Your task to perform on an android device: Do I have any events this weekend? Image 0: 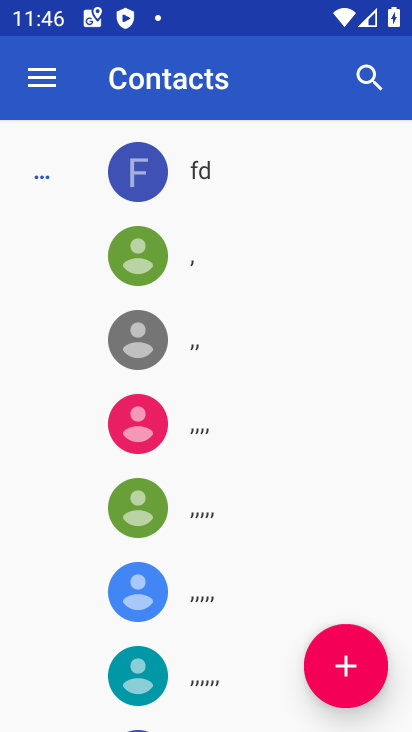
Step 0: press home button
Your task to perform on an android device: Do I have any events this weekend? Image 1: 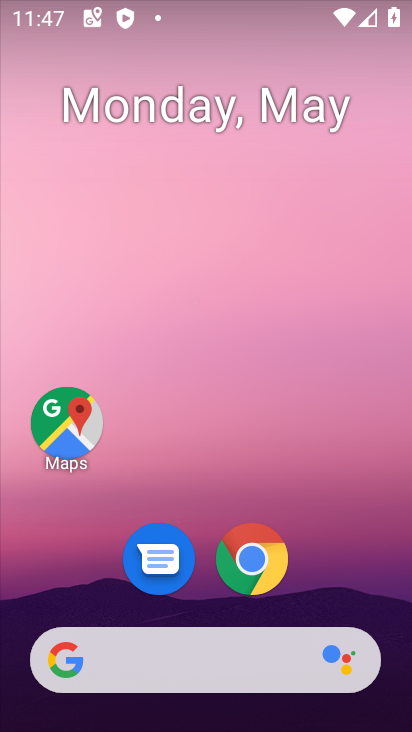
Step 1: drag from (346, 543) to (309, 226)
Your task to perform on an android device: Do I have any events this weekend? Image 2: 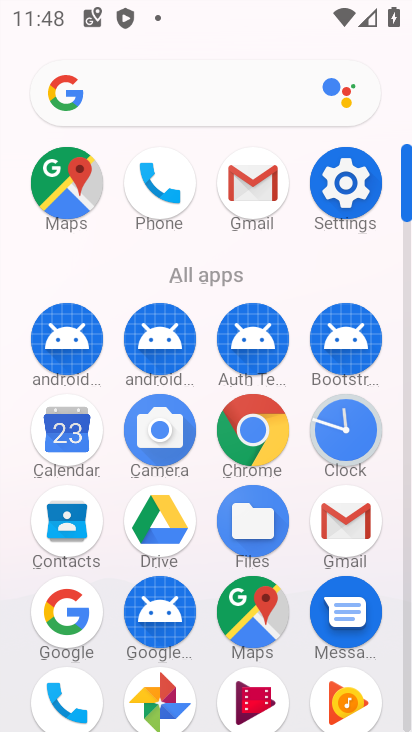
Step 2: click (75, 437)
Your task to perform on an android device: Do I have any events this weekend? Image 3: 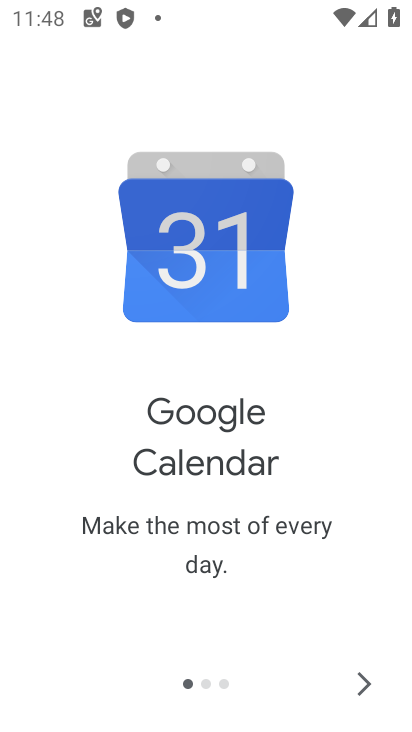
Step 3: click (347, 692)
Your task to perform on an android device: Do I have any events this weekend? Image 4: 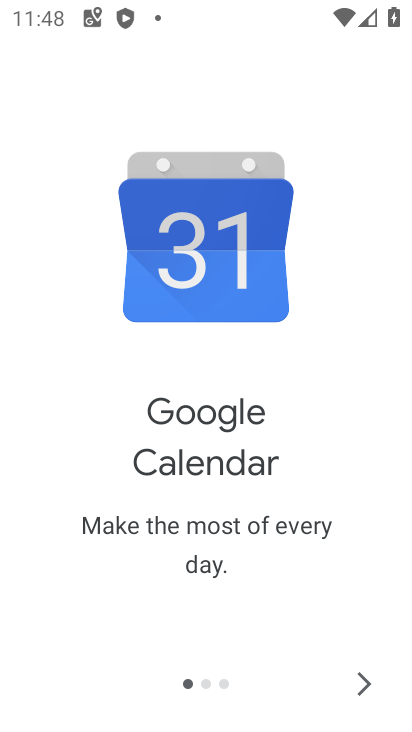
Step 4: click (347, 692)
Your task to perform on an android device: Do I have any events this weekend? Image 5: 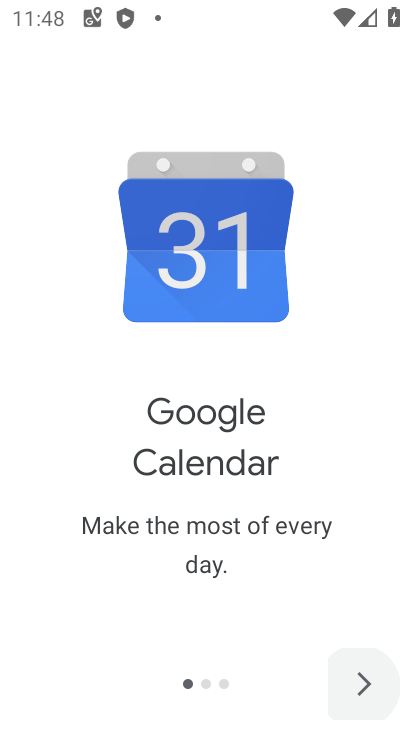
Step 5: click (347, 692)
Your task to perform on an android device: Do I have any events this weekend? Image 6: 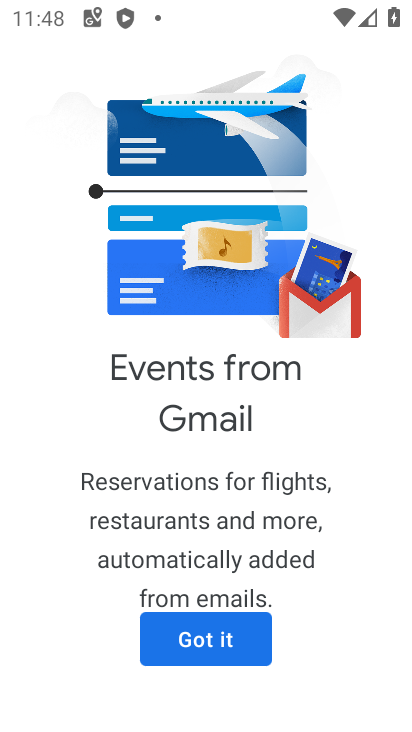
Step 6: click (240, 643)
Your task to perform on an android device: Do I have any events this weekend? Image 7: 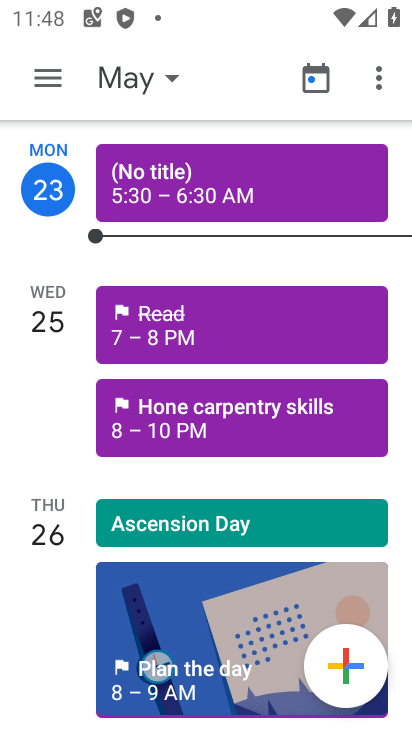
Step 7: task complete